Your task to perform on an android device: set an alarm Image 0: 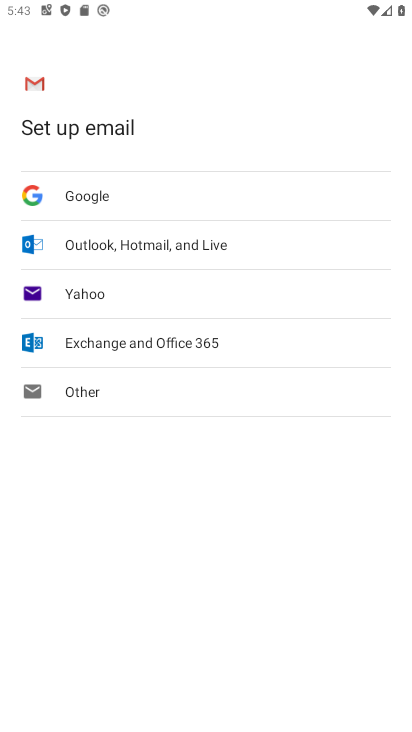
Step 0: click (317, 204)
Your task to perform on an android device: set an alarm Image 1: 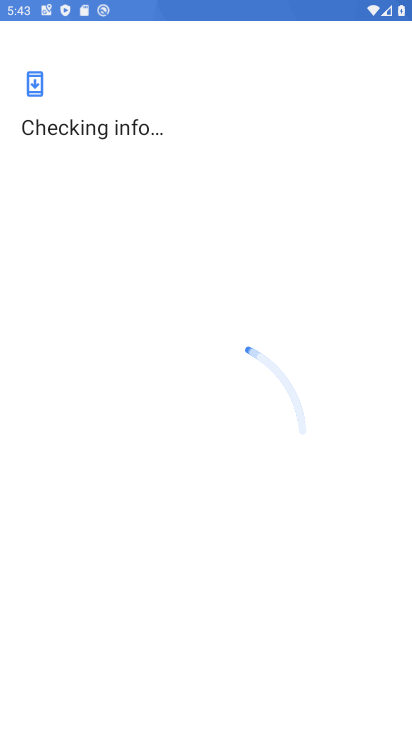
Step 1: press home button
Your task to perform on an android device: set an alarm Image 2: 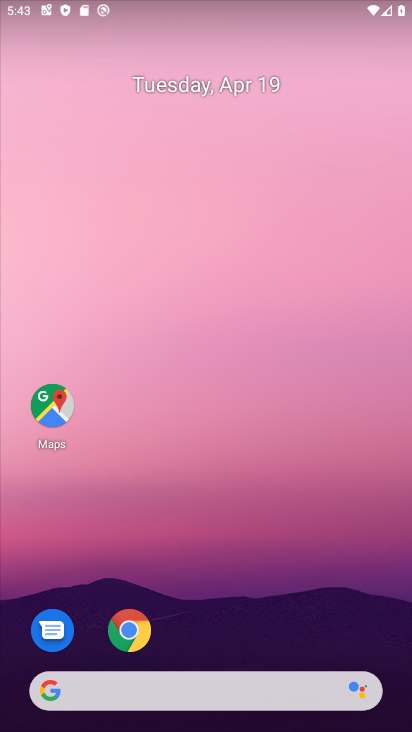
Step 2: drag from (297, 559) to (279, 53)
Your task to perform on an android device: set an alarm Image 3: 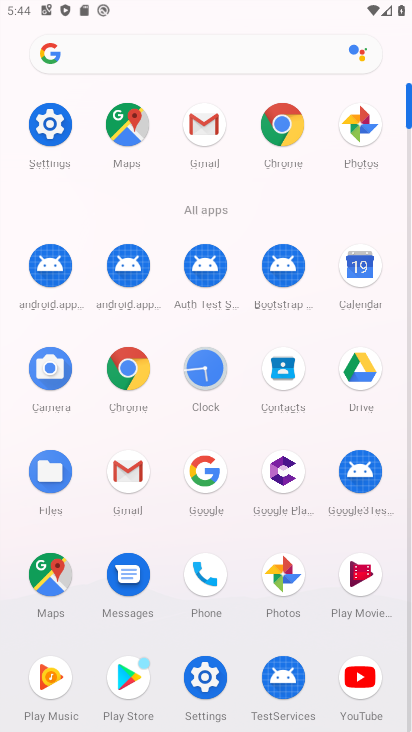
Step 3: click (189, 368)
Your task to perform on an android device: set an alarm Image 4: 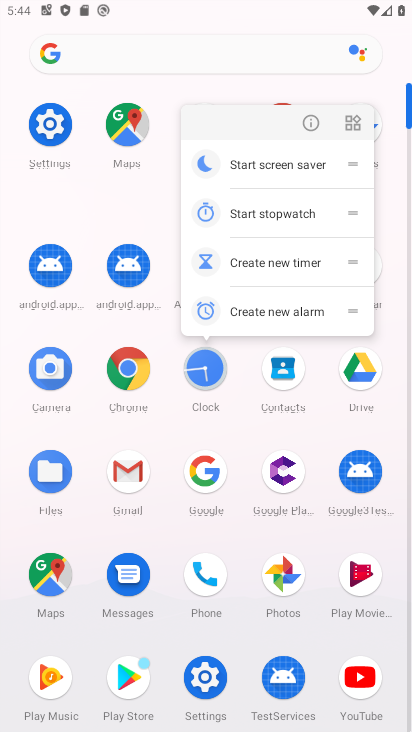
Step 4: click (225, 369)
Your task to perform on an android device: set an alarm Image 5: 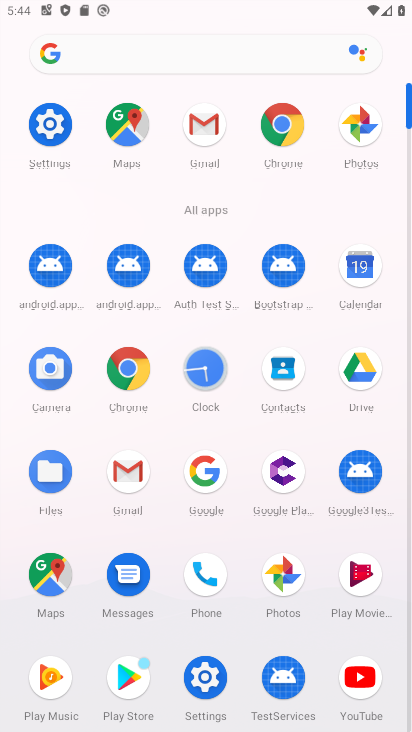
Step 5: click (210, 371)
Your task to perform on an android device: set an alarm Image 6: 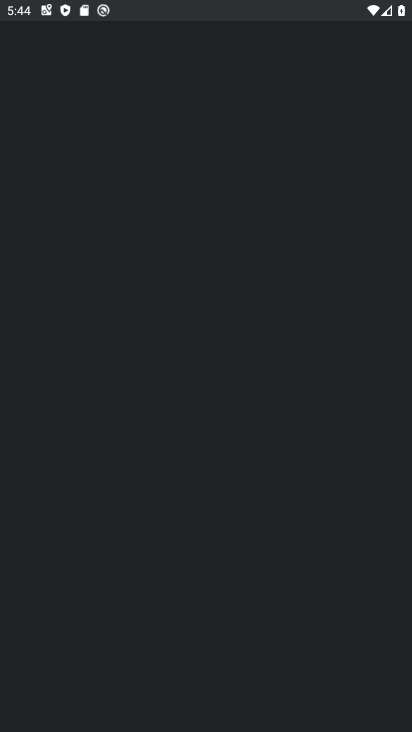
Step 6: click (210, 371)
Your task to perform on an android device: set an alarm Image 7: 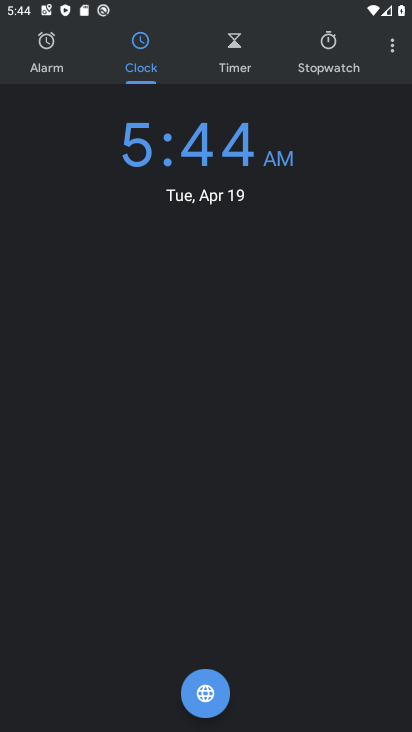
Step 7: click (67, 44)
Your task to perform on an android device: set an alarm Image 8: 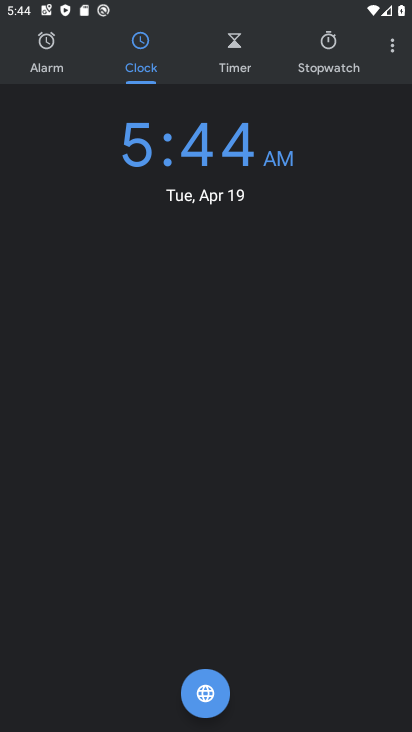
Step 8: click (67, 44)
Your task to perform on an android device: set an alarm Image 9: 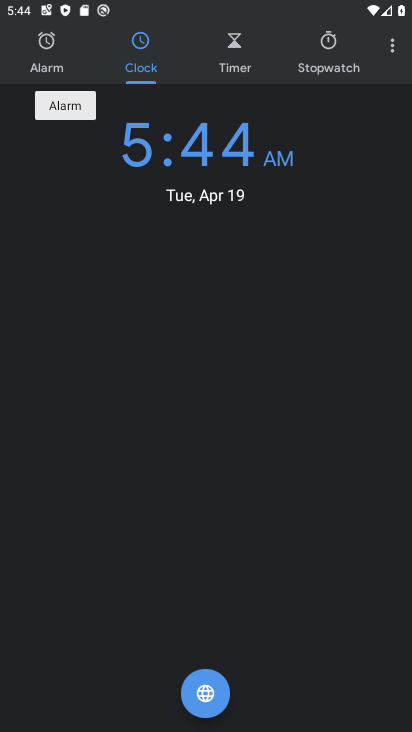
Step 9: click (67, 44)
Your task to perform on an android device: set an alarm Image 10: 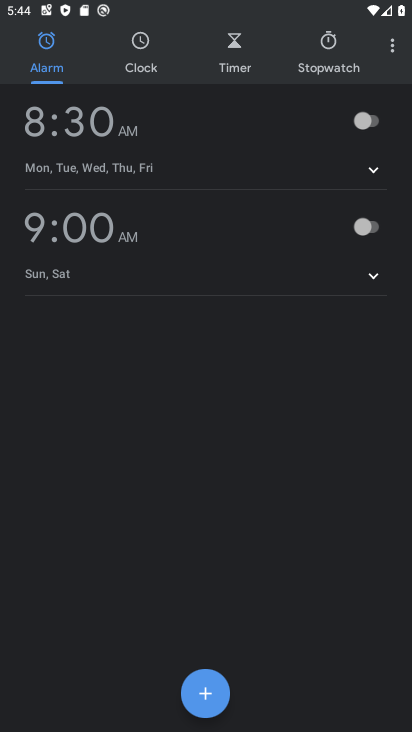
Step 10: click (200, 703)
Your task to perform on an android device: set an alarm Image 11: 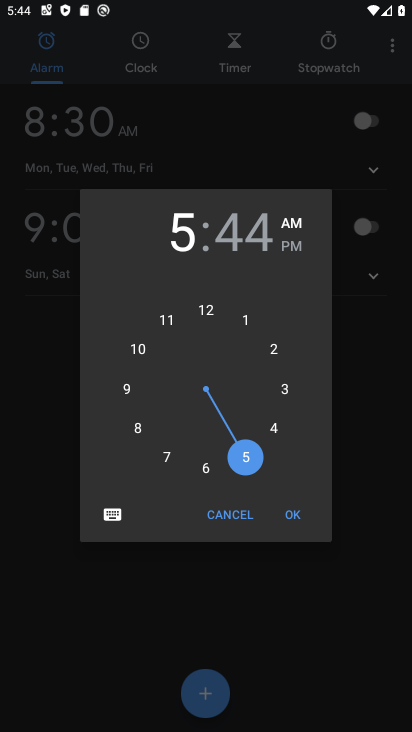
Step 11: click (211, 471)
Your task to perform on an android device: set an alarm Image 12: 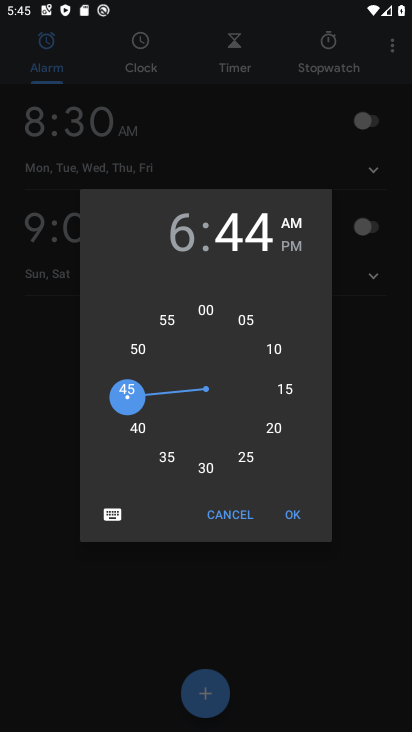
Step 12: click (299, 522)
Your task to perform on an android device: set an alarm Image 13: 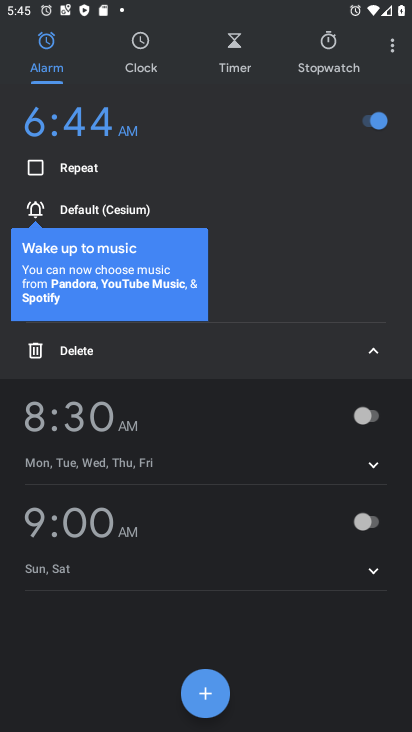
Step 13: task complete